Your task to perform on an android device: open app "Speedtest by Ookla" Image 0: 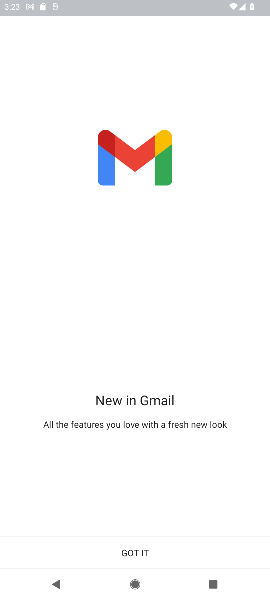
Step 0: press home button
Your task to perform on an android device: open app "Speedtest by Ookla" Image 1: 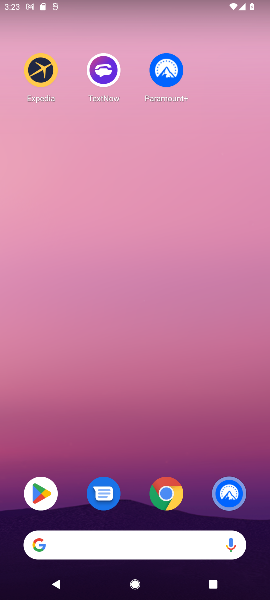
Step 1: click (37, 493)
Your task to perform on an android device: open app "Speedtest by Ookla" Image 2: 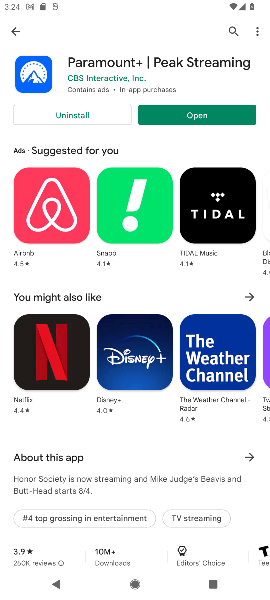
Step 2: click (16, 31)
Your task to perform on an android device: open app "Speedtest by Ookla" Image 3: 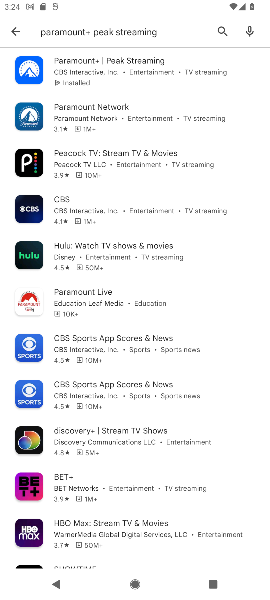
Step 3: click (218, 29)
Your task to perform on an android device: open app "Speedtest by Ookla" Image 4: 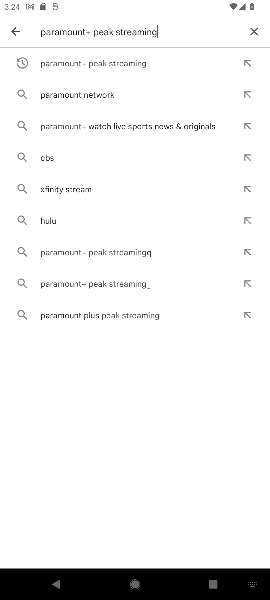
Step 4: click (252, 29)
Your task to perform on an android device: open app "Speedtest by Ookla" Image 5: 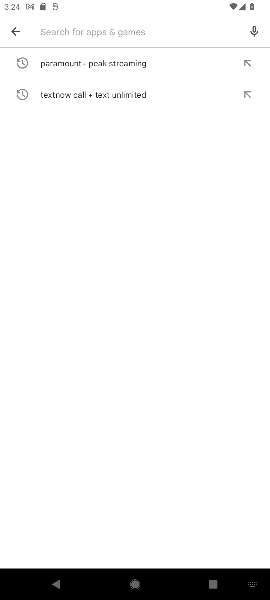
Step 5: type "Speedtest by Ookla"
Your task to perform on an android device: open app "Speedtest by Ookla" Image 6: 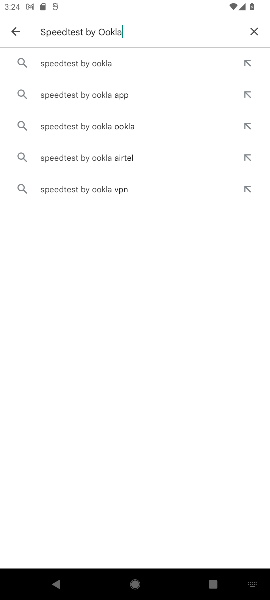
Step 6: click (73, 58)
Your task to perform on an android device: open app "Speedtest by Ookla" Image 7: 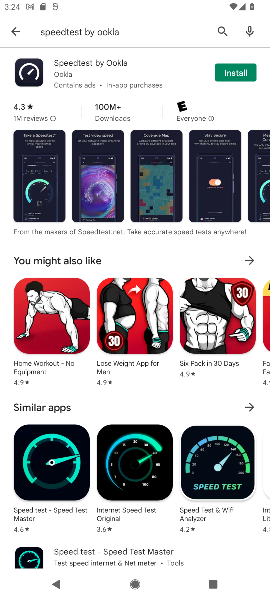
Step 7: task complete